Your task to perform on an android device: Go to privacy settings Image 0: 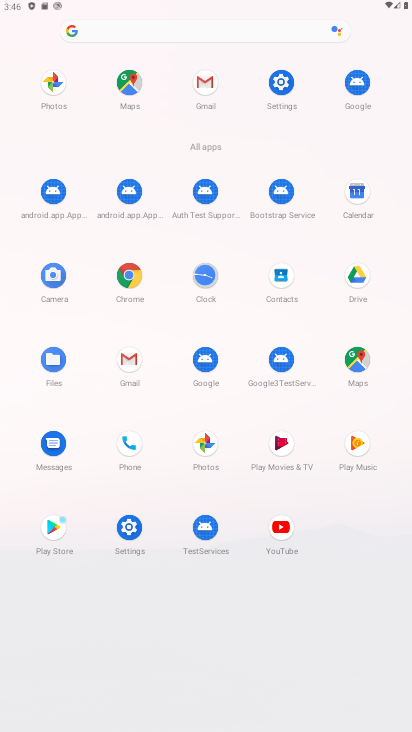
Step 0: press home button
Your task to perform on an android device: Go to privacy settings Image 1: 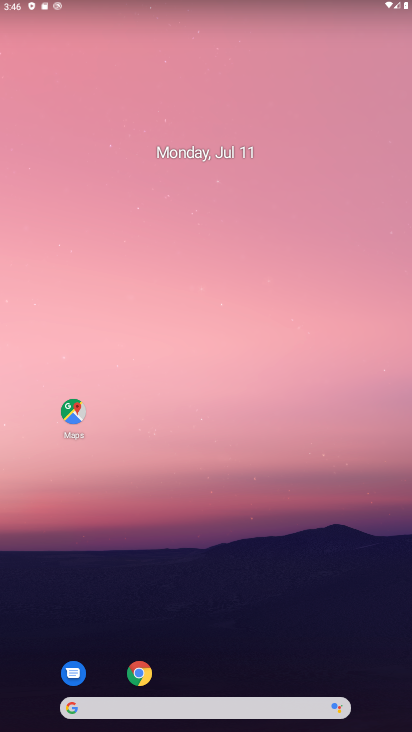
Step 1: drag from (357, 654) to (294, 54)
Your task to perform on an android device: Go to privacy settings Image 2: 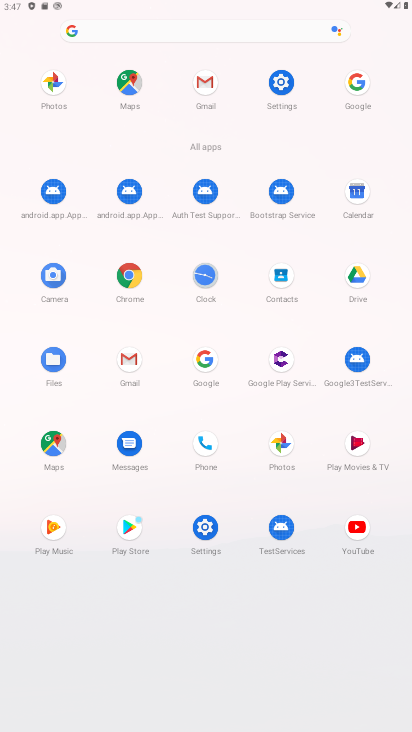
Step 2: click (202, 540)
Your task to perform on an android device: Go to privacy settings Image 3: 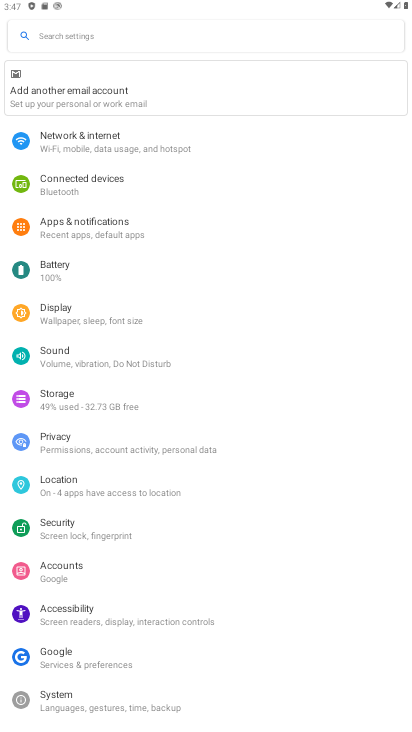
Step 3: click (77, 434)
Your task to perform on an android device: Go to privacy settings Image 4: 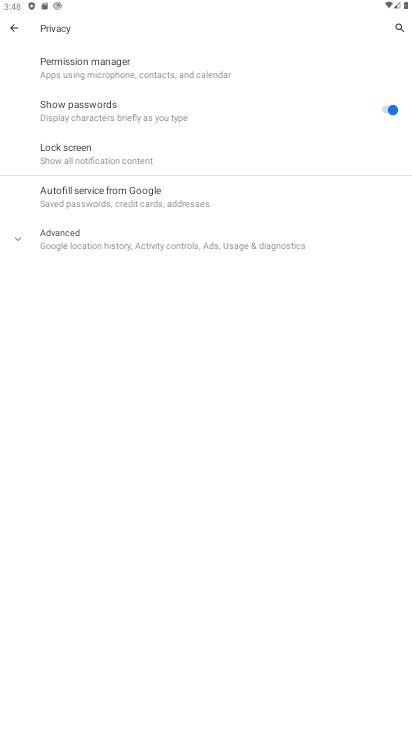
Step 4: task complete